Your task to perform on an android device: Go to Amazon Image 0: 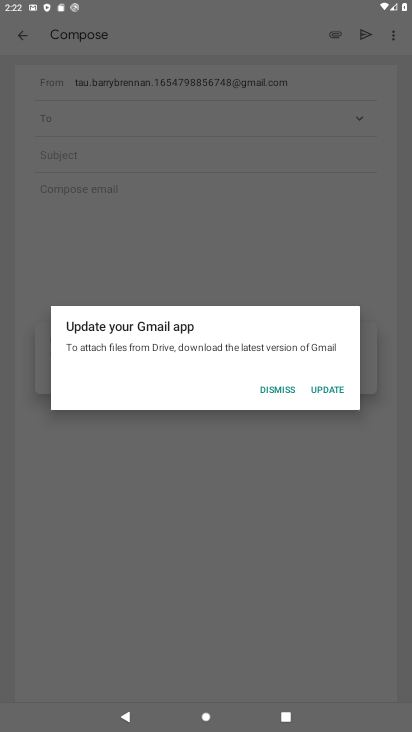
Step 0: press home button
Your task to perform on an android device: Go to Amazon Image 1: 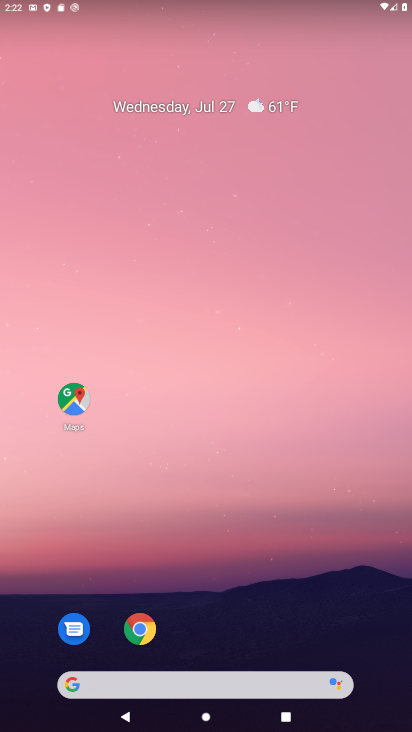
Step 1: drag from (265, 623) to (295, 129)
Your task to perform on an android device: Go to Amazon Image 2: 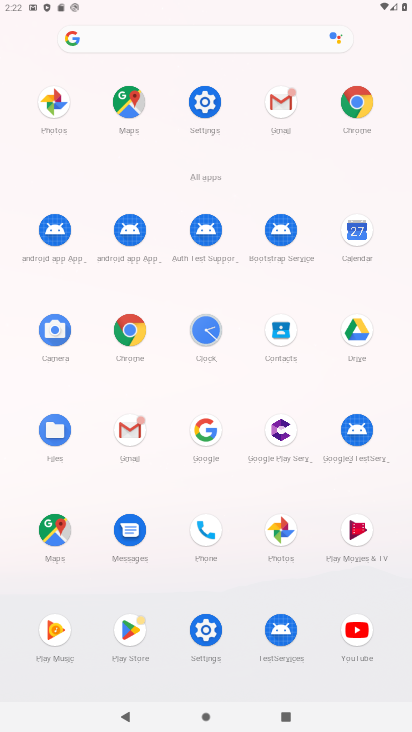
Step 2: click (137, 329)
Your task to perform on an android device: Go to Amazon Image 3: 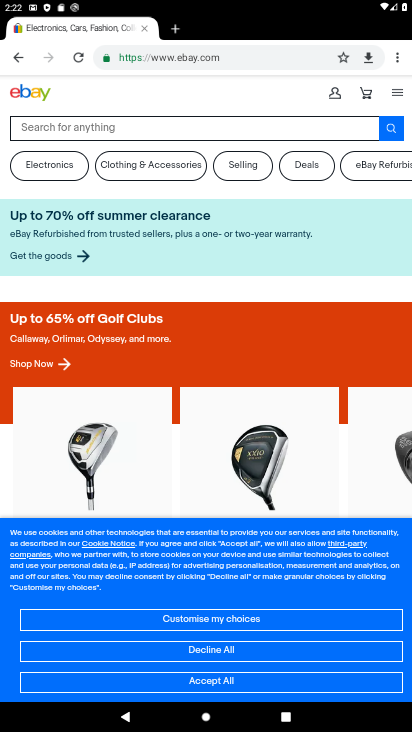
Step 3: drag from (392, 52) to (276, 381)
Your task to perform on an android device: Go to Amazon Image 4: 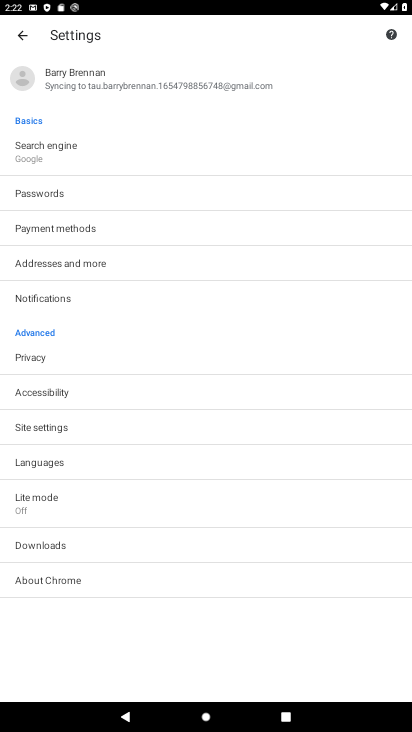
Step 4: press home button
Your task to perform on an android device: Go to Amazon Image 5: 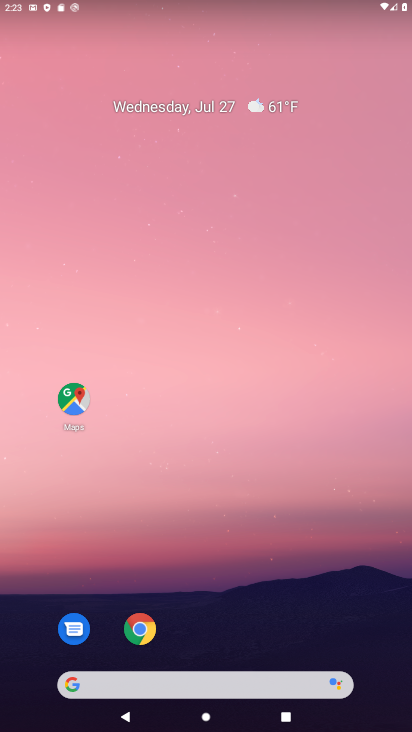
Step 5: drag from (246, 616) to (286, 98)
Your task to perform on an android device: Go to Amazon Image 6: 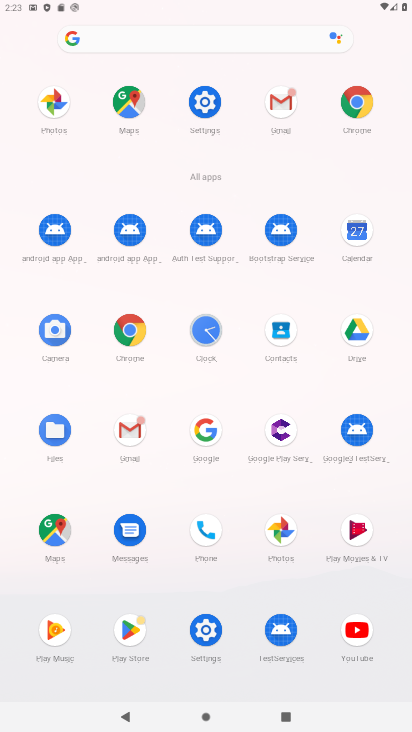
Step 6: click (357, 101)
Your task to perform on an android device: Go to Amazon Image 7: 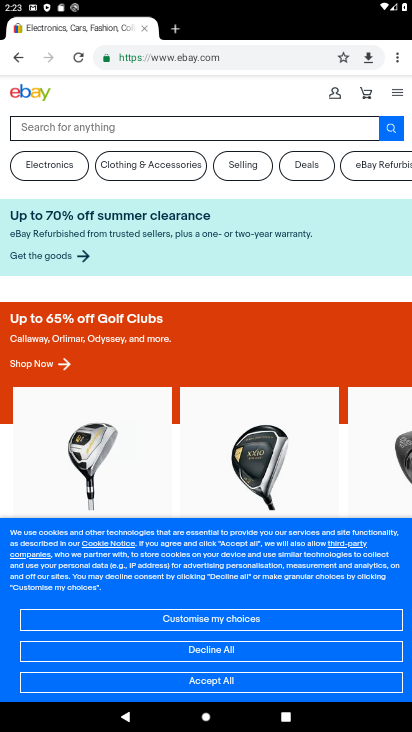
Step 7: click (217, 58)
Your task to perform on an android device: Go to Amazon Image 8: 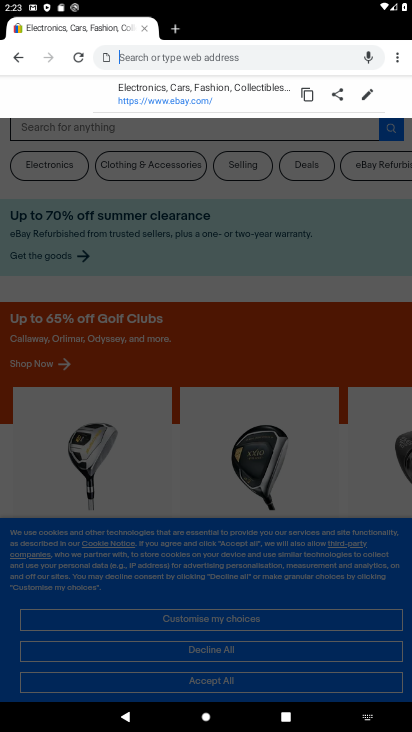
Step 8: type "Go to Amazon"
Your task to perform on an android device: Go to Amazon Image 9: 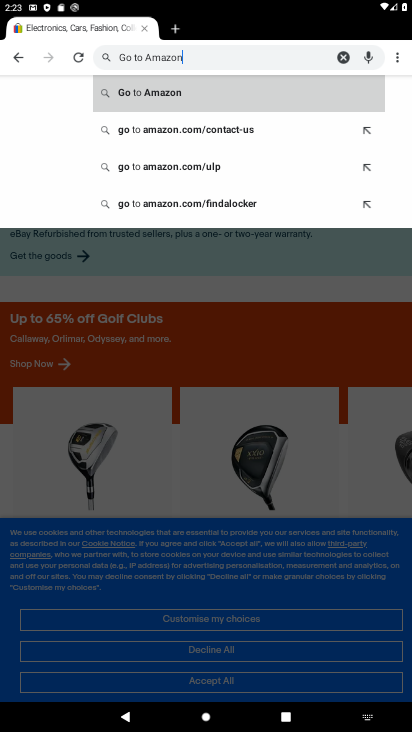
Step 9: click (168, 87)
Your task to perform on an android device: Go to Amazon Image 10: 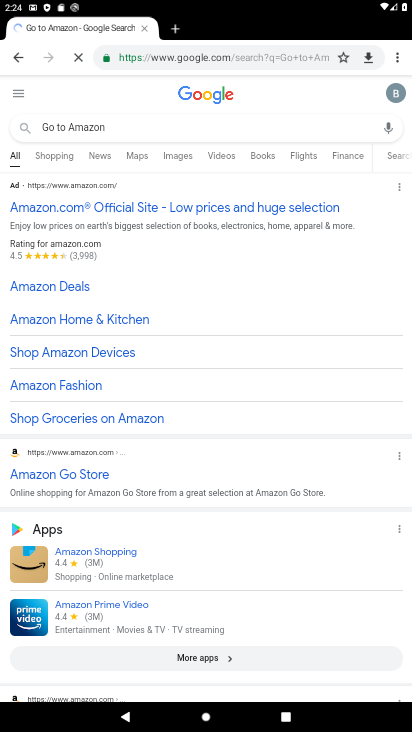
Step 10: task complete